Your task to perform on an android device: What's the weather going to be tomorrow? Image 0: 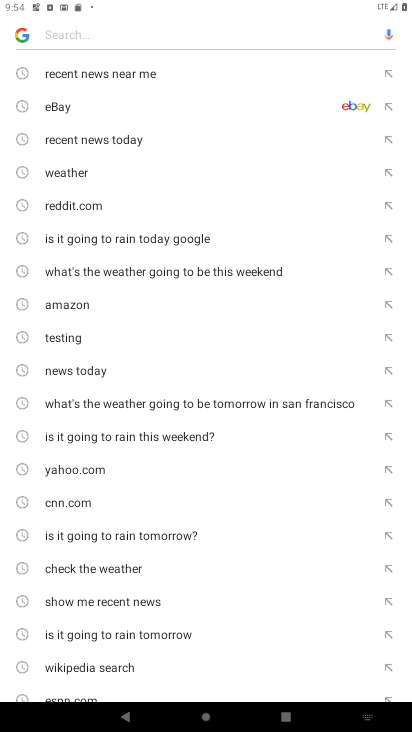
Step 0: press back button
Your task to perform on an android device: What's the weather going to be tomorrow? Image 1: 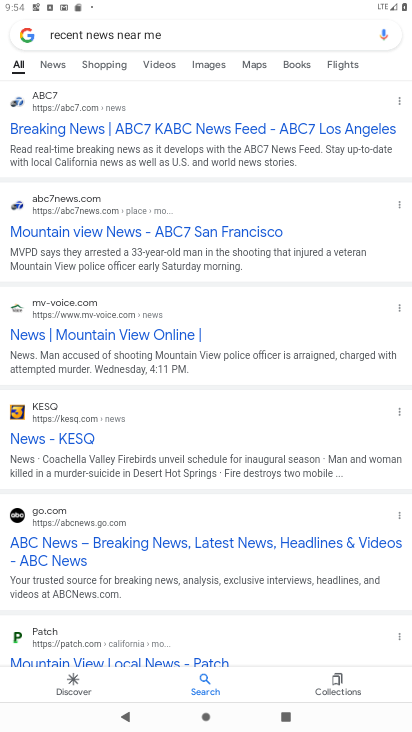
Step 1: press back button
Your task to perform on an android device: What's the weather going to be tomorrow? Image 2: 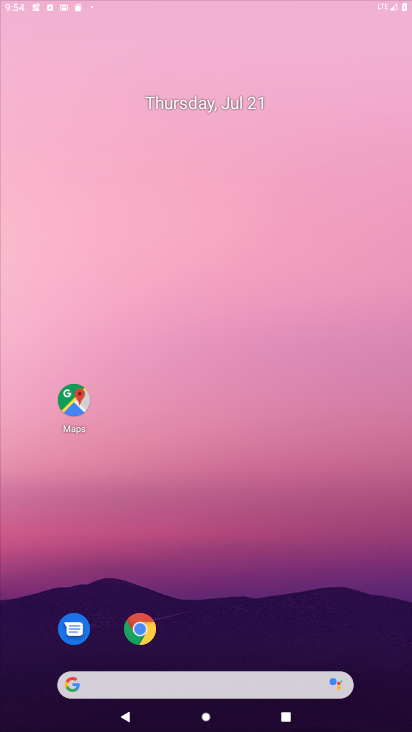
Step 2: press back button
Your task to perform on an android device: What's the weather going to be tomorrow? Image 3: 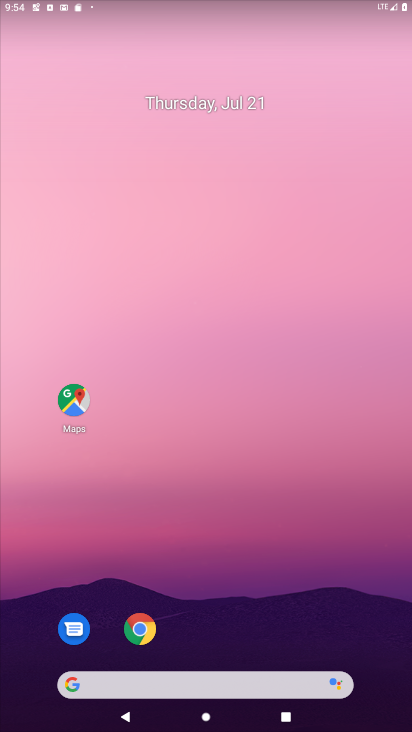
Step 3: drag from (239, 622) to (221, 217)
Your task to perform on an android device: What's the weather going to be tomorrow? Image 4: 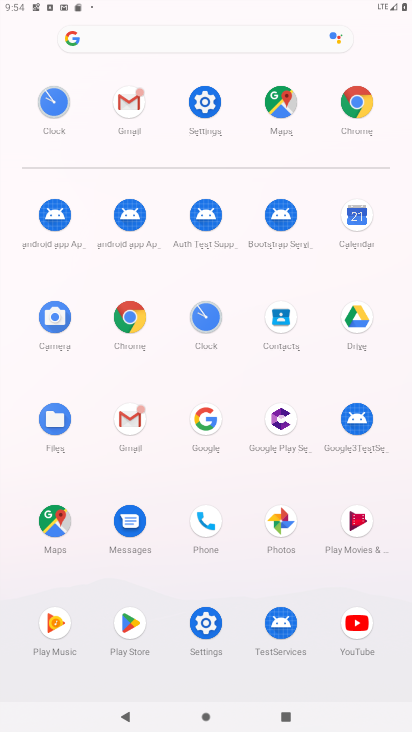
Step 4: click (144, 333)
Your task to perform on an android device: What's the weather going to be tomorrow? Image 5: 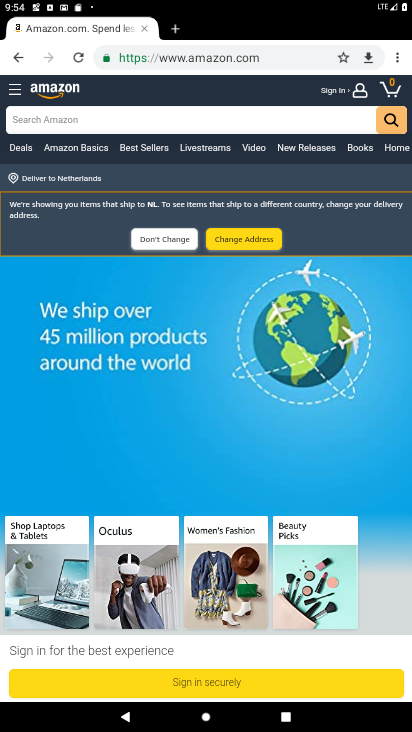
Step 5: click (186, 30)
Your task to perform on an android device: What's the weather going to be tomorrow? Image 6: 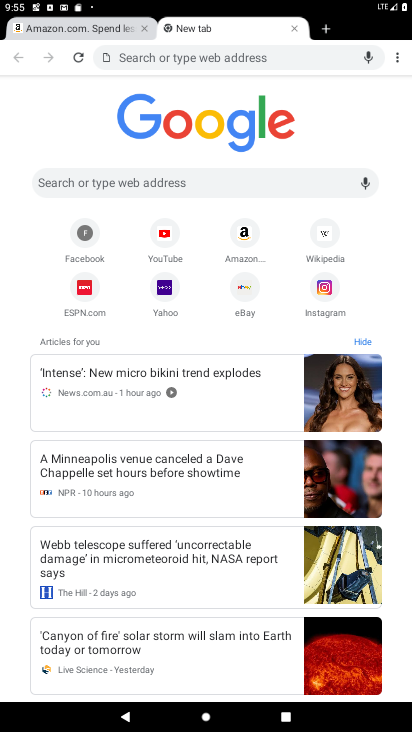
Step 6: click (152, 192)
Your task to perform on an android device: What's the weather going to be tomorrow? Image 7: 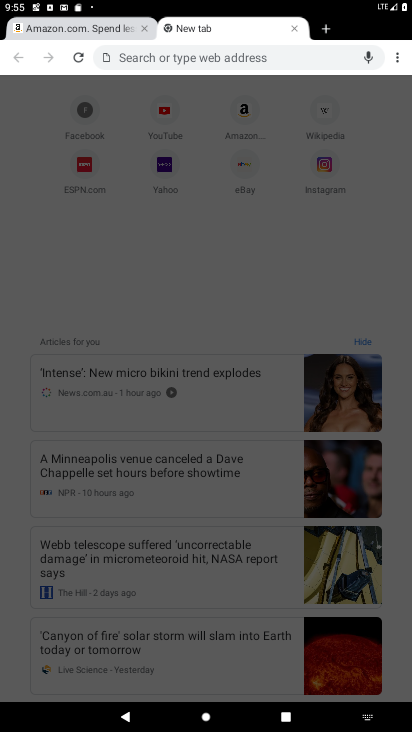
Step 7: type "weather"
Your task to perform on an android device: What's the weather going to be tomorrow? Image 8: 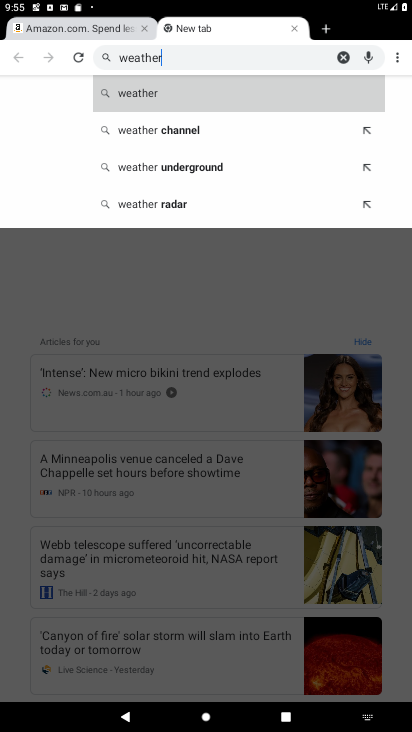
Step 8: type ""
Your task to perform on an android device: What's the weather going to be tomorrow? Image 9: 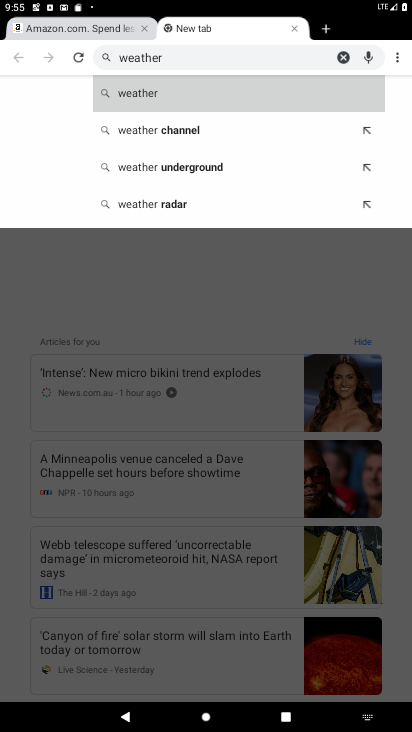
Step 9: click (175, 93)
Your task to perform on an android device: What's the weather going to be tomorrow? Image 10: 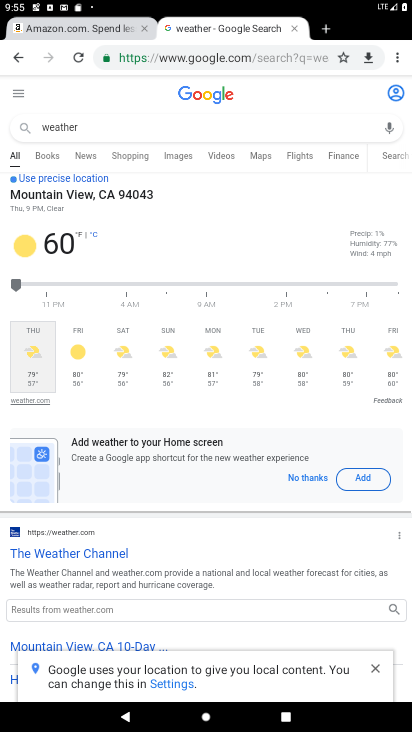
Step 10: task complete